Your task to perform on an android device: Search for usb-a to usb-b on bestbuy, select the first entry, and add it to the cart. Image 0: 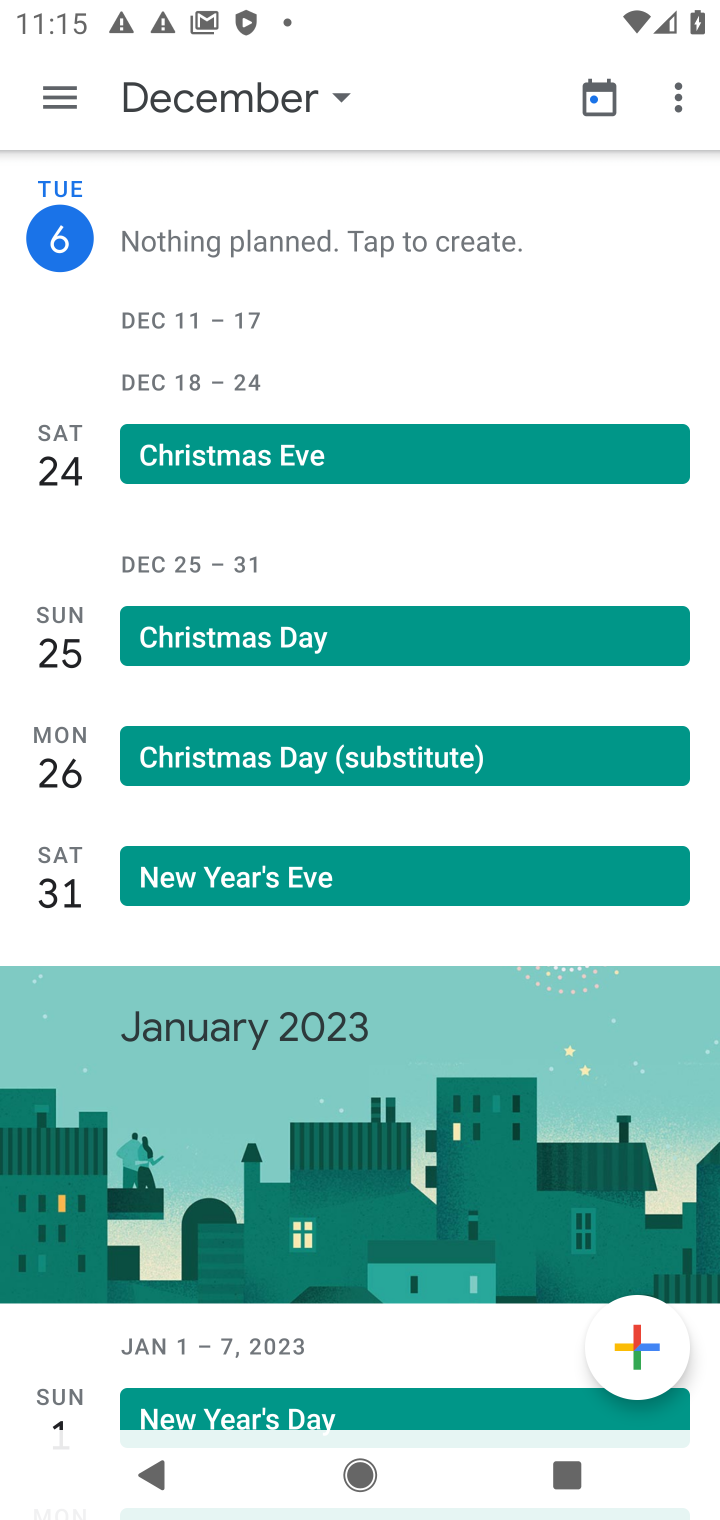
Step 0: press home button
Your task to perform on an android device: Search for usb-a to usb-b on bestbuy, select the first entry, and add it to the cart. Image 1: 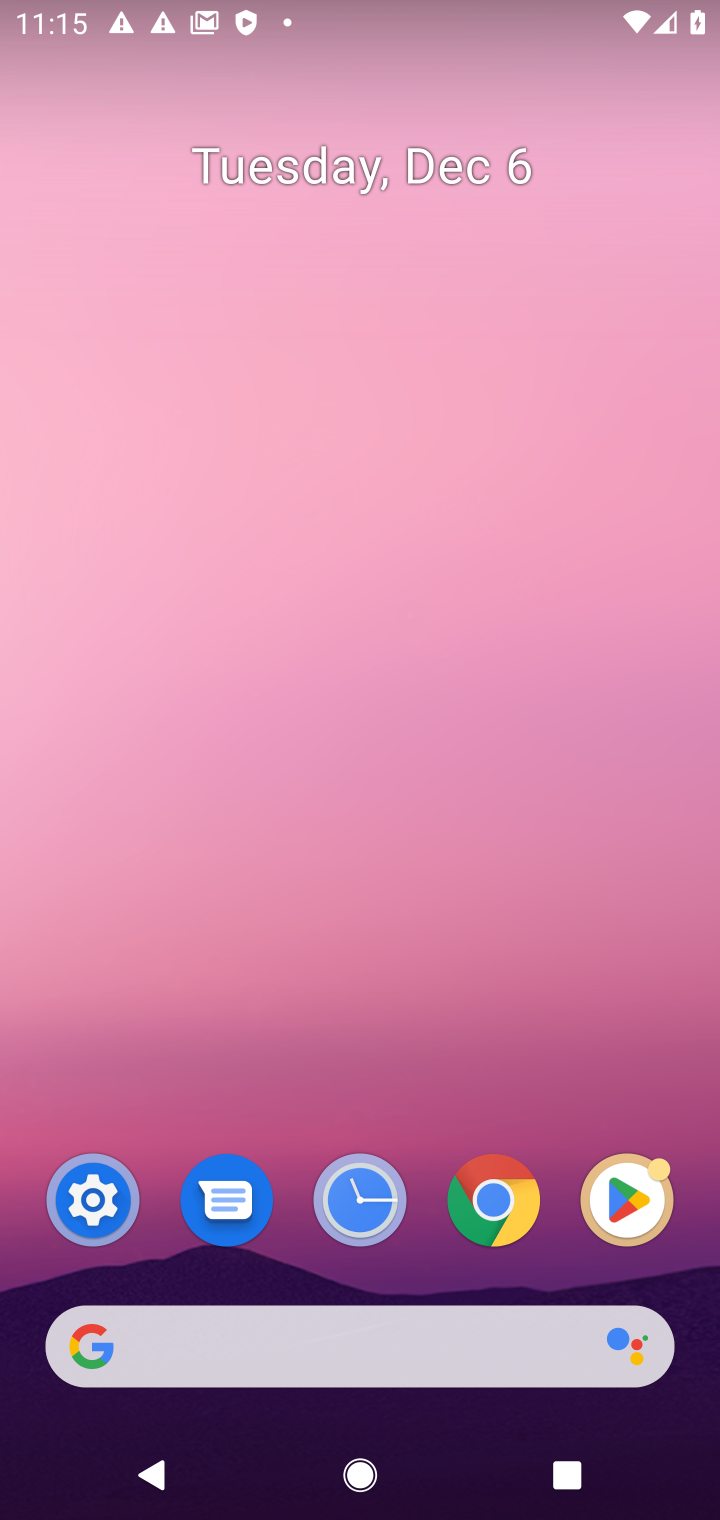
Step 1: click (342, 1334)
Your task to perform on an android device: Search for usb-a to usb-b on bestbuy, select the first entry, and add it to the cart. Image 2: 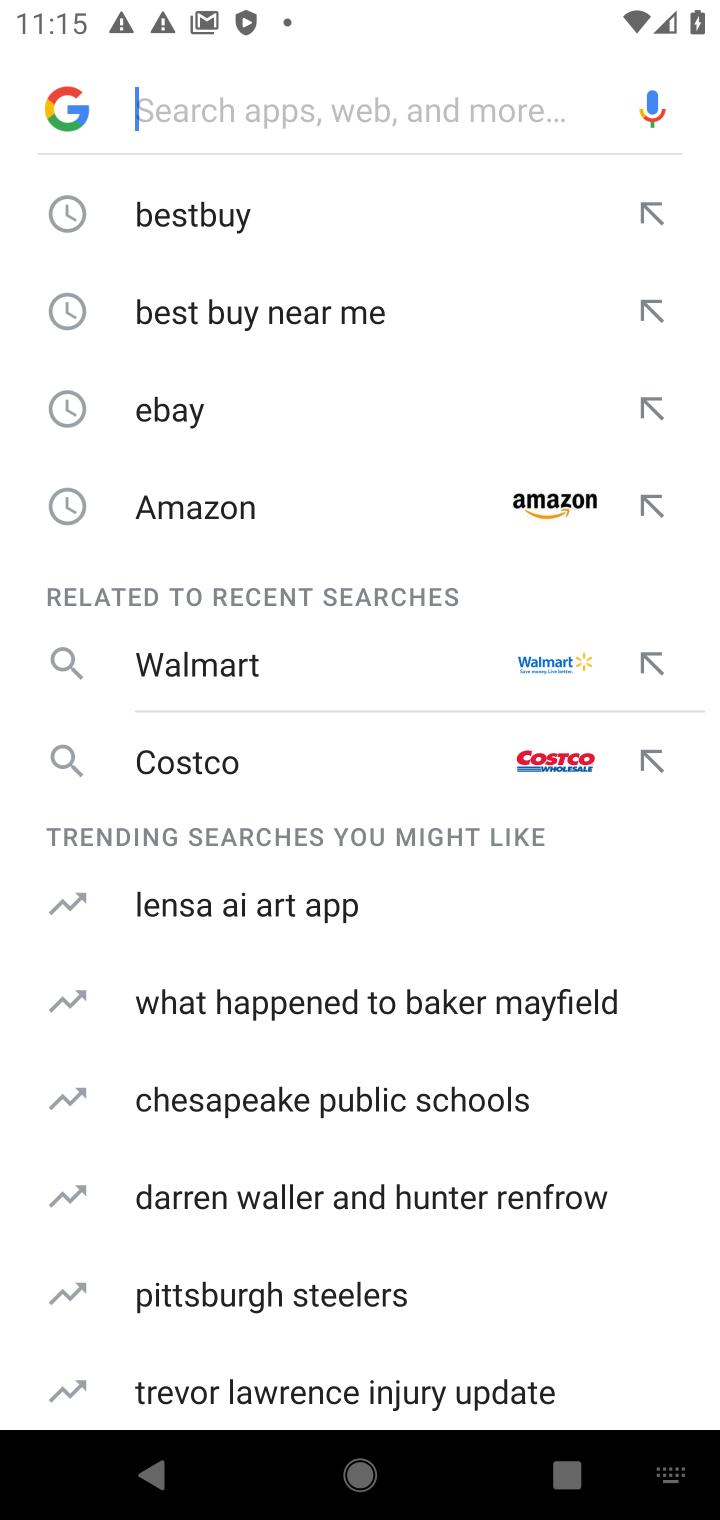
Step 2: click (156, 209)
Your task to perform on an android device: Search for usb-a to usb-b on bestbuy, select the first entry, and add it to the cart. Image 3: 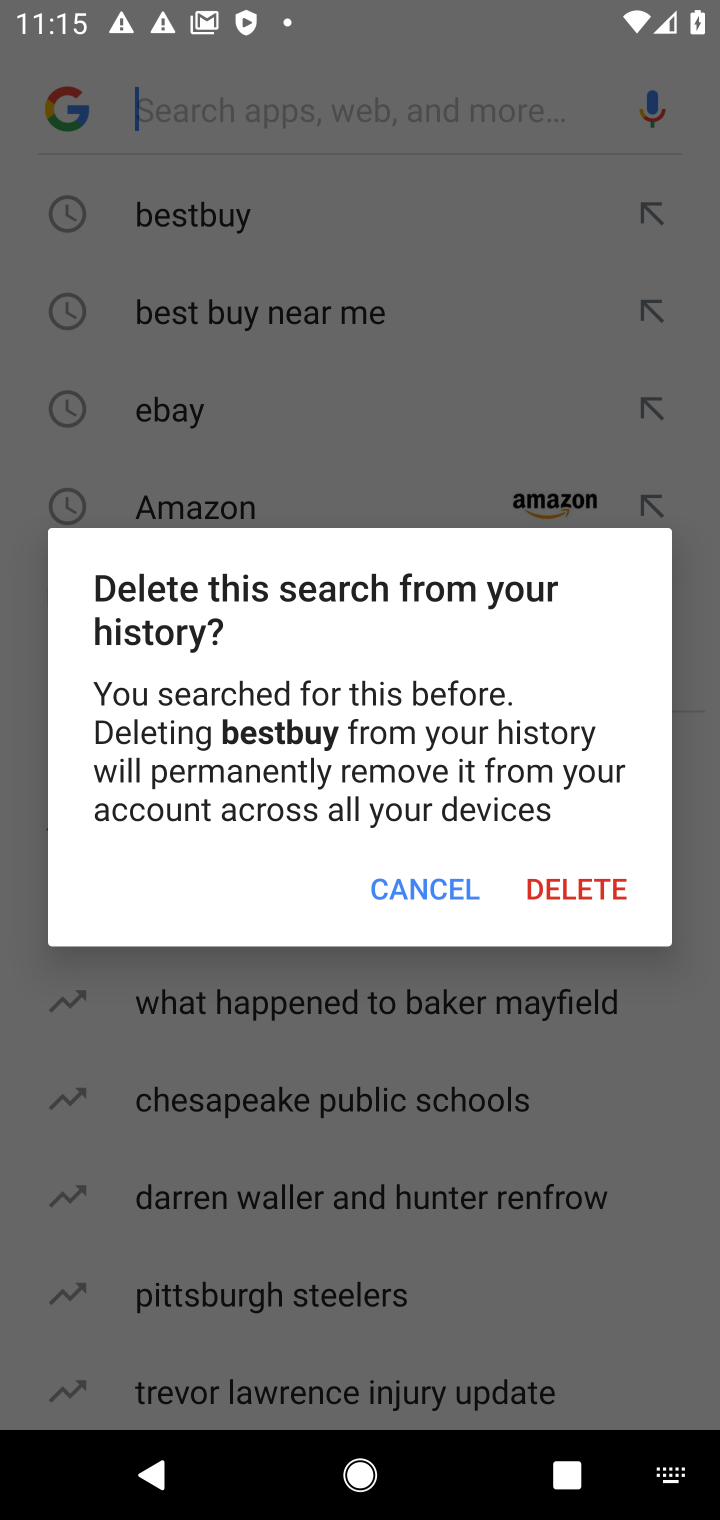
Step 3: click (416, 860)
Your task to perform on an android device: Search for usb-a to usb-b on bestbuy, select the first entry, and add it to the cart. Image 4: 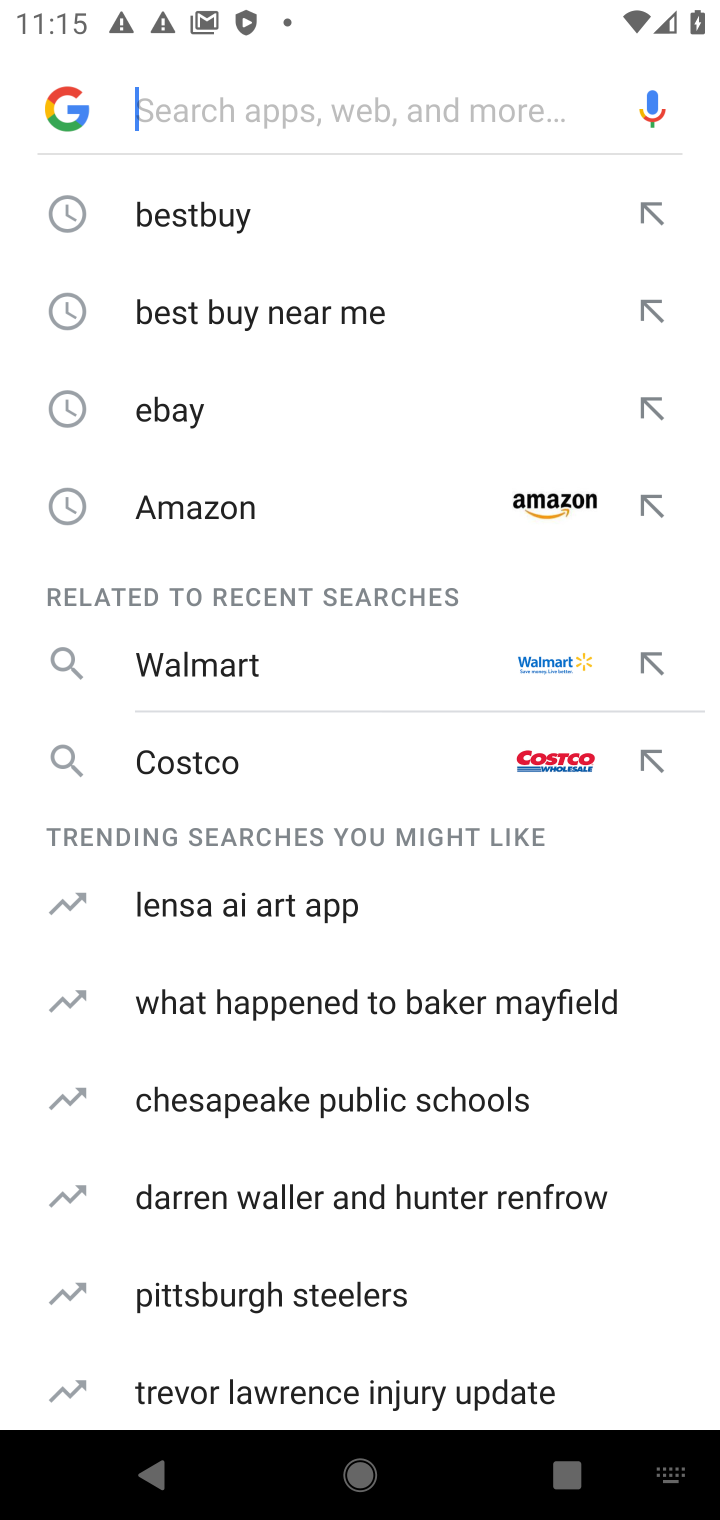
Step 4: click (224, 213)
Your task to perform on an android device: Search for usb-a to usb-b on bestbuy, select the first entry, and add it to the cart. Image 5: 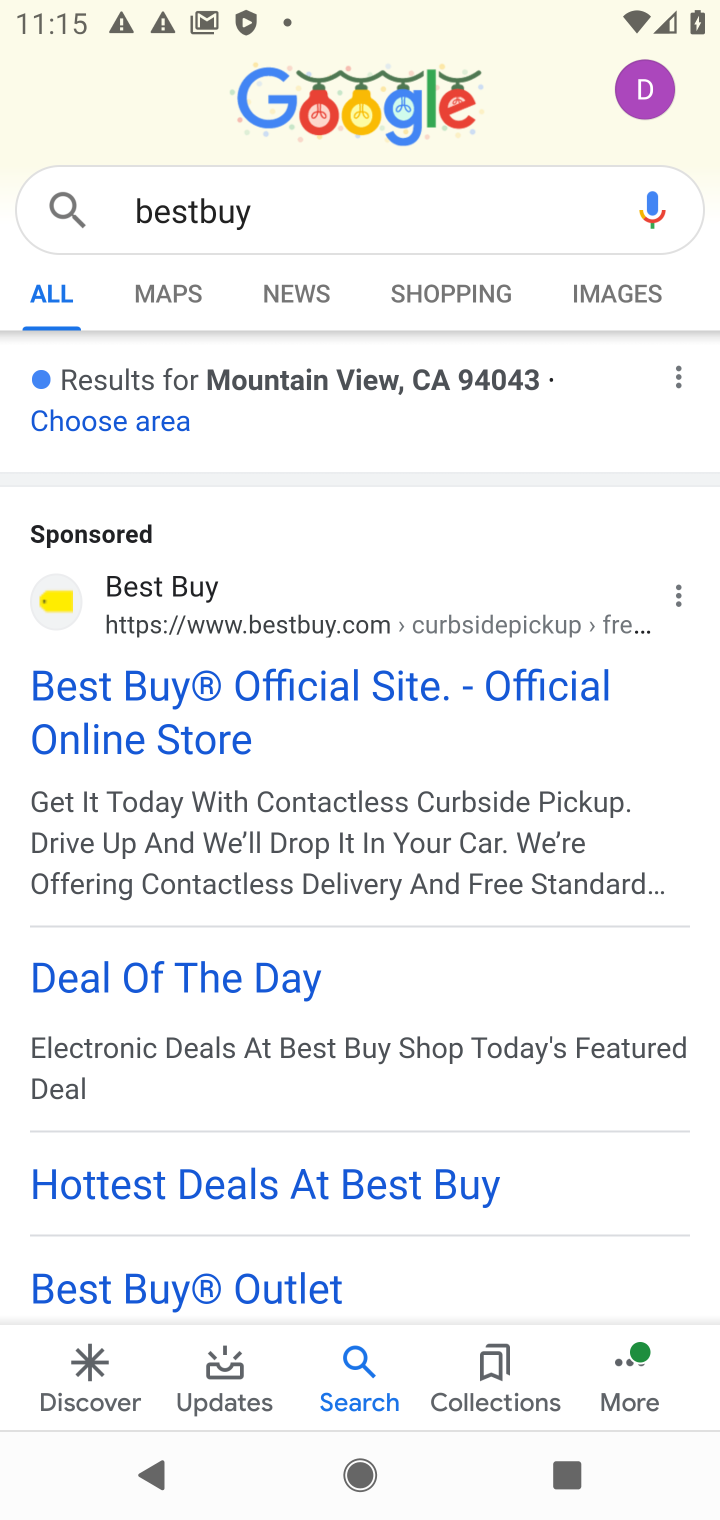
Step 5: click (123, 725)
Your task to perform on an android device: Search for usb-a to usb-b on bestbuy, select the first entry, and add it to the cart. Image 6: 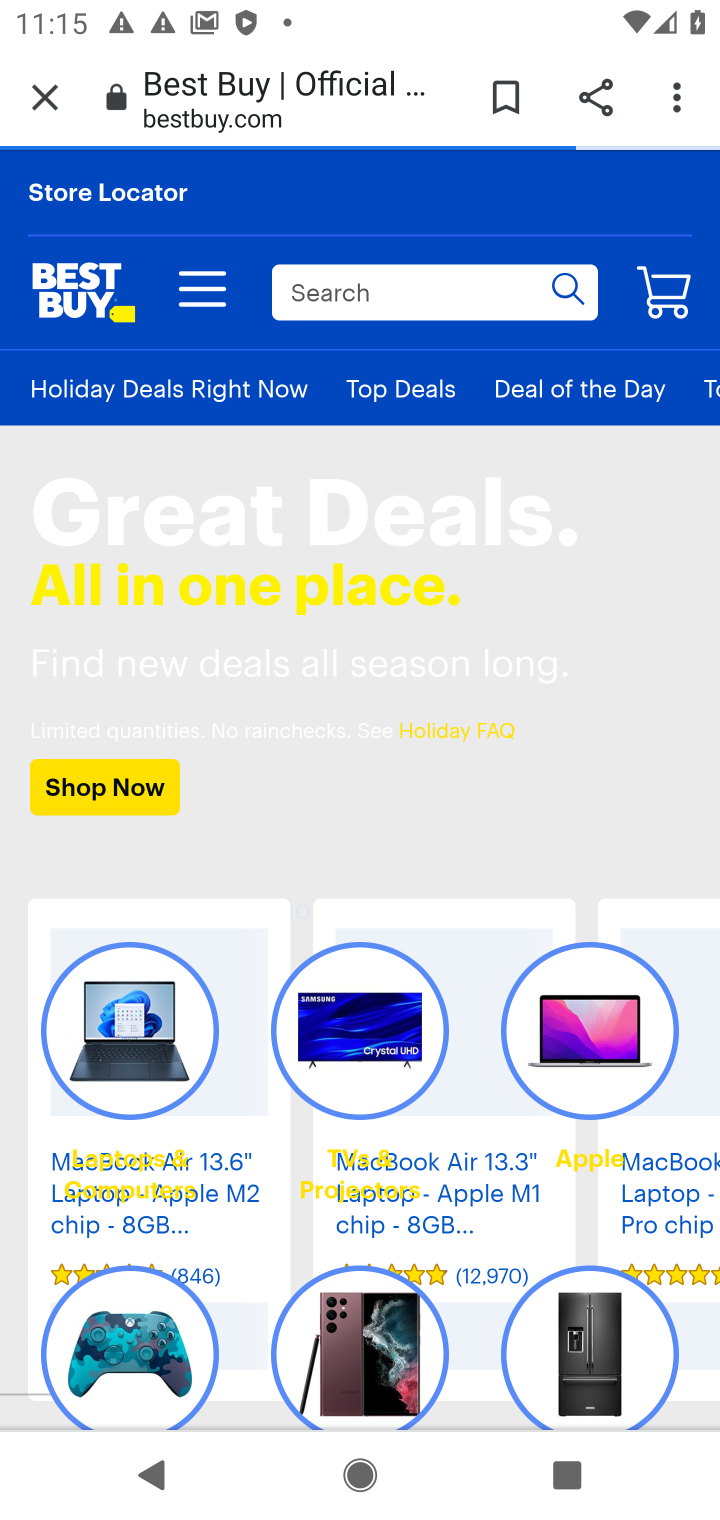
Step 6: click (321, 310)
Your task to perform on an android device: Search for usb-a to usb-b on bestbuy, select the first entry, and add it to the cart. Image 7: 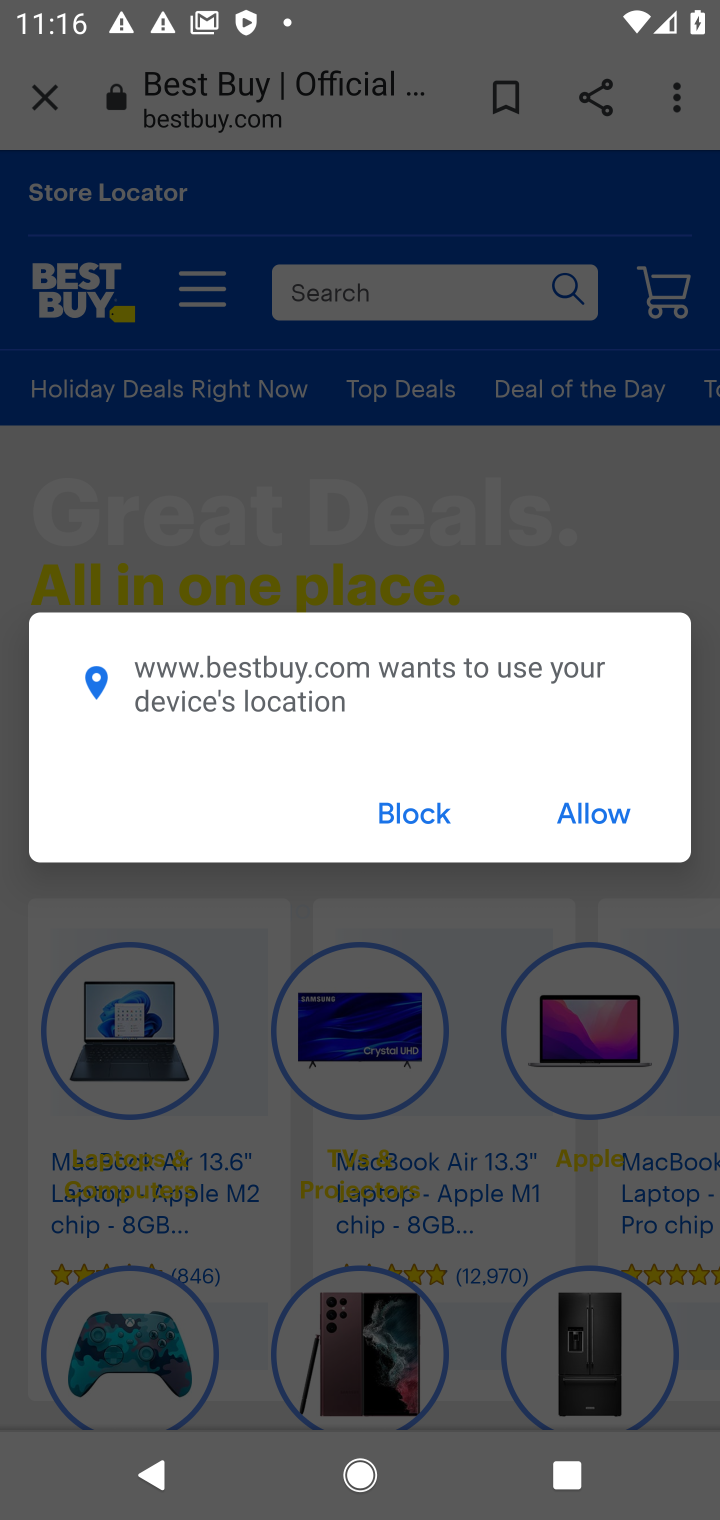
Step 7: type "usb-a to usb-b"
Your task to perform on an android device: Search for usb-a to usb-b on bestbuy, select the first entry, and add it to the cart. Image 8: 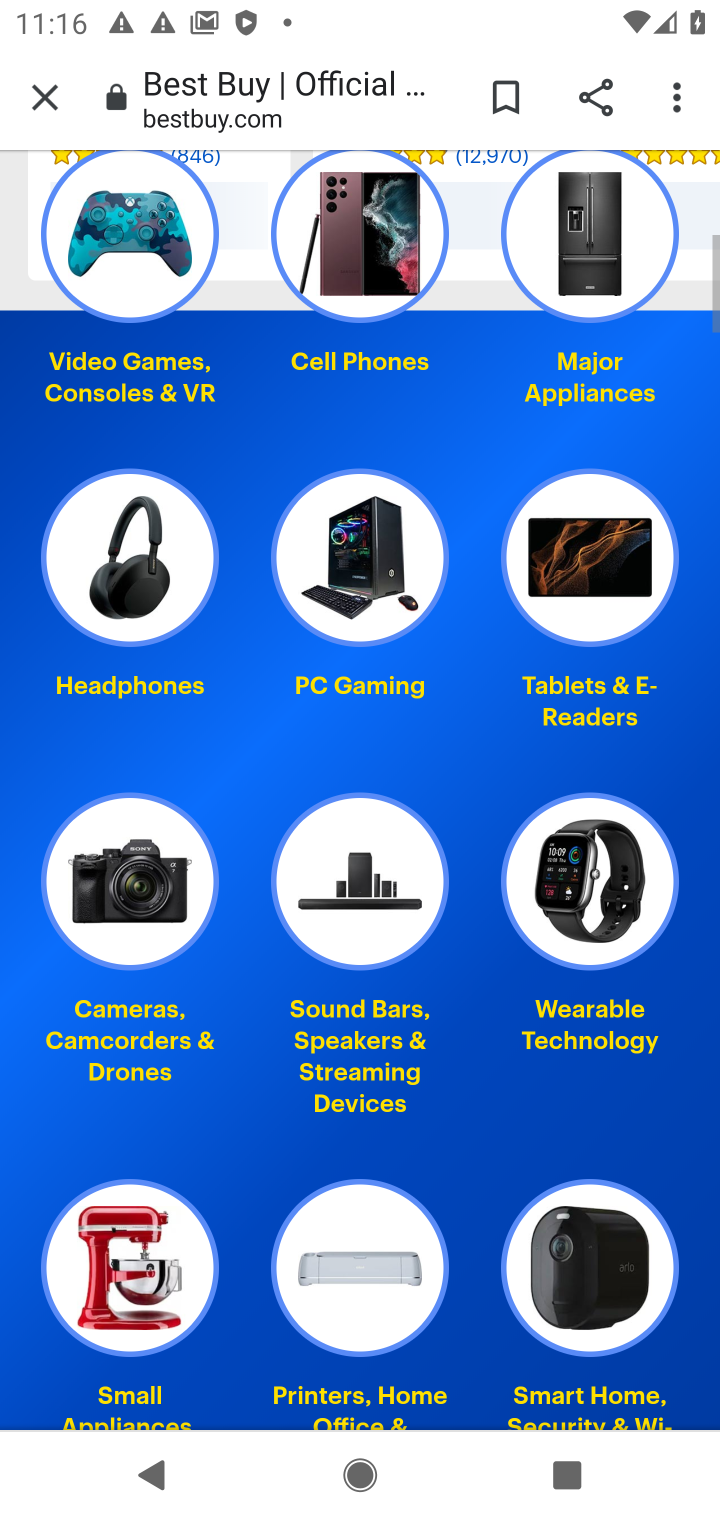
Step 8: click (396, 799)
Your task to perform on an android device: Search for usb-a to usb-b on bestbuy, select the first entry, and add it to the cart. Image 9: 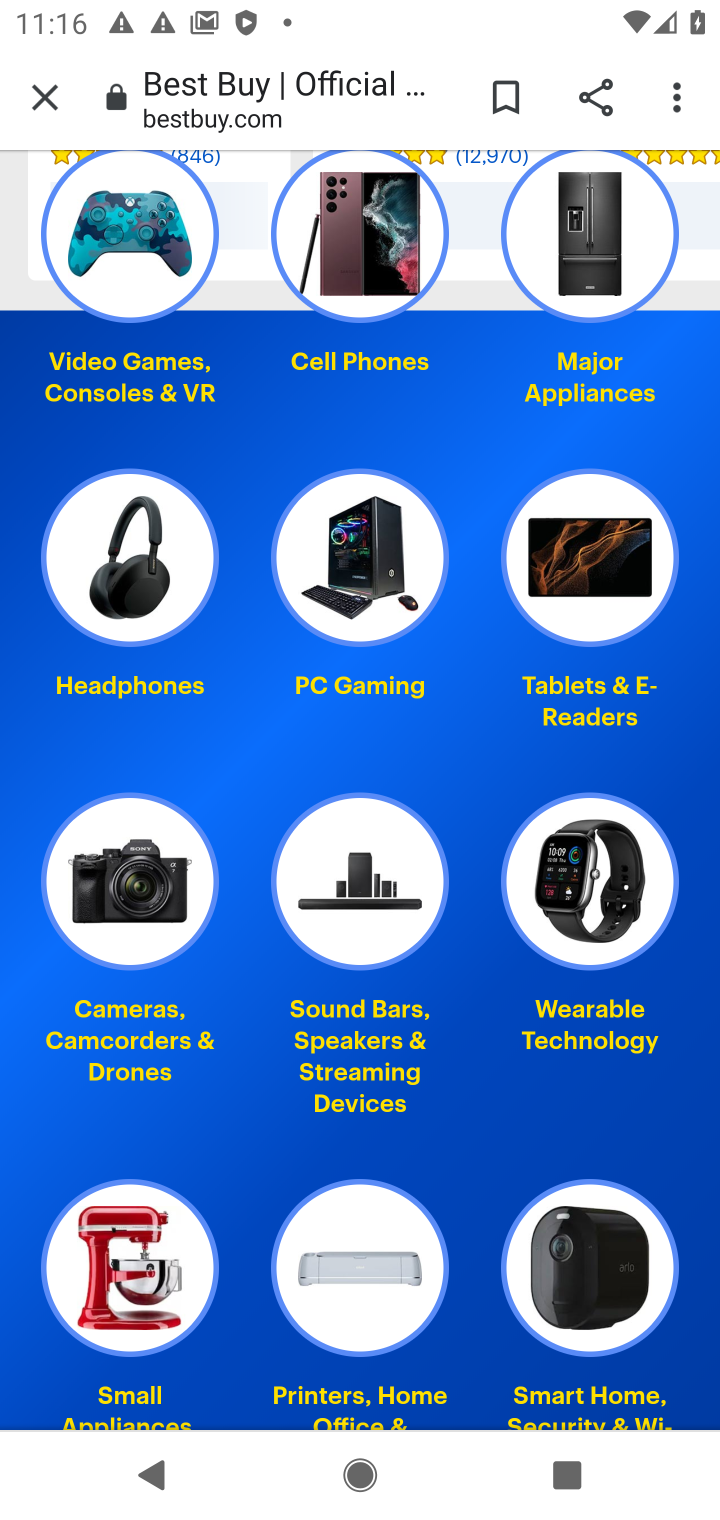
Step 9: task complete